Your task to perform on an android device: What's the weather going to be tomorrow? Image 0: 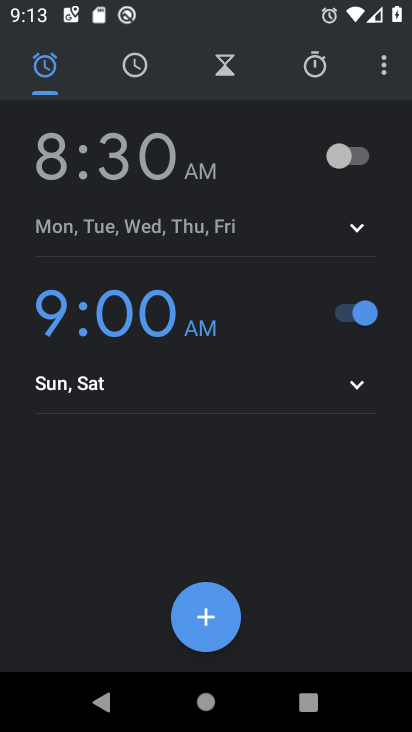
Step 0: press home button
Your task to perform on an android device: What's the weather going to be tomorrow? Image 1: 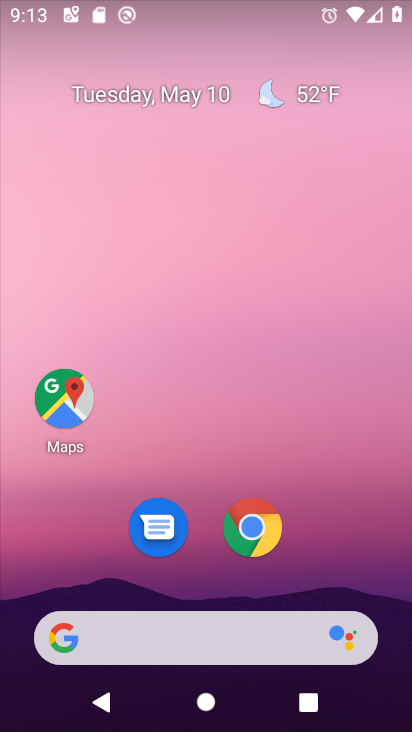
Step 1: click (243, 521)
Your task to perform on an android device: What's the weather going to be tomorrow? Image 2: 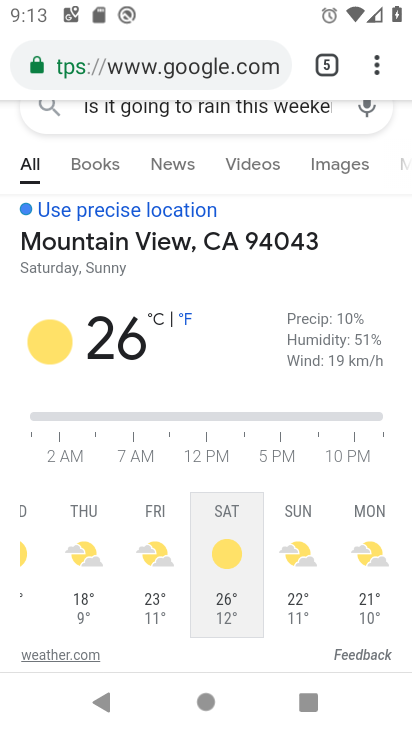
Step 2: click (323, 65)
Your task to perform on an android device: What's the weather going to be tomorrow? Image 3: 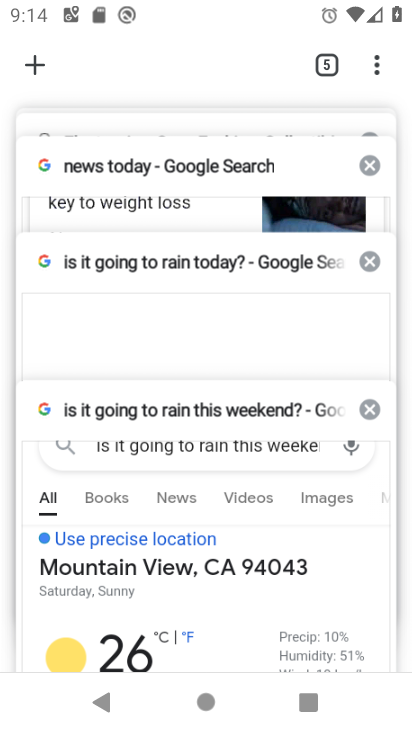
Step 3: click (33, 65)
Your task to perform on an android device: What's the weather going to be tomorrow? Image 4: 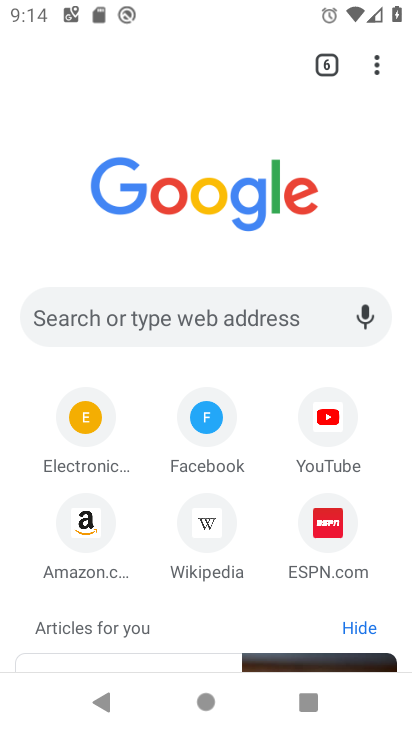
Step 4: click (111, 300)
Your task to perform on an android device: What's the weather going to be tomorrow? Image 5: 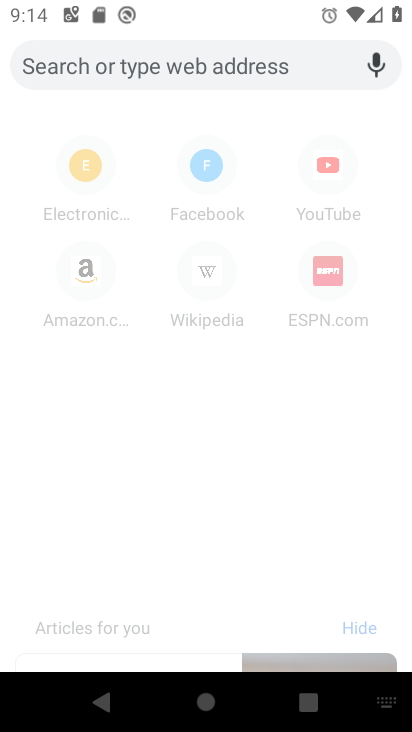
Step 5: type "whats the weather going to be tomorrow?"
Your task to perform on an android device: What's the weather going to be tomorrow? Image 6: 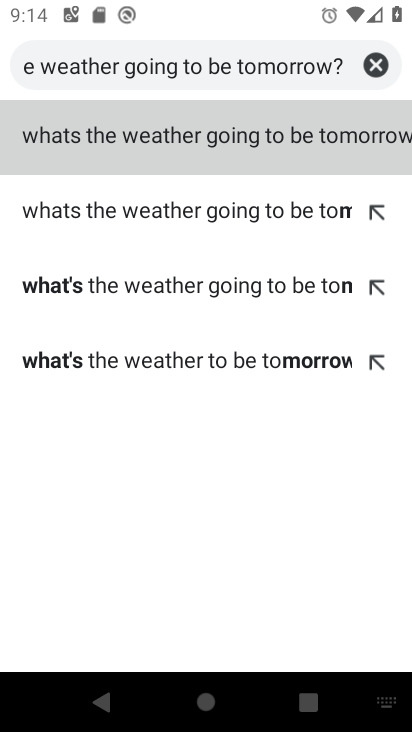
Step 6: click (162, 152)
Your task to perform on an android device: What's the weather going to be tomorrow? Image 7: 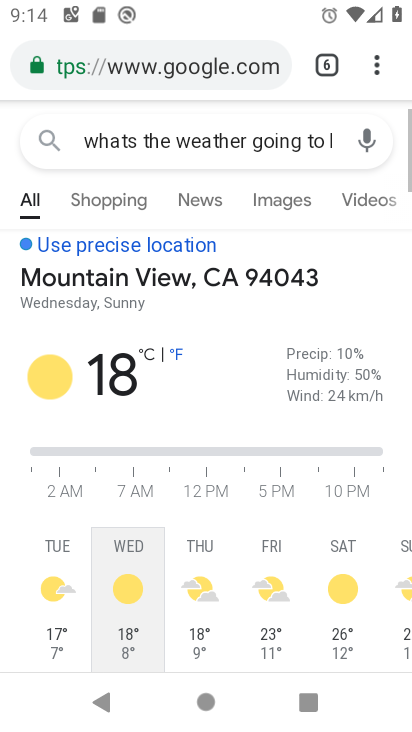
Step 7: task complete